Your task to perform on an android device: check out phone information Image 0: 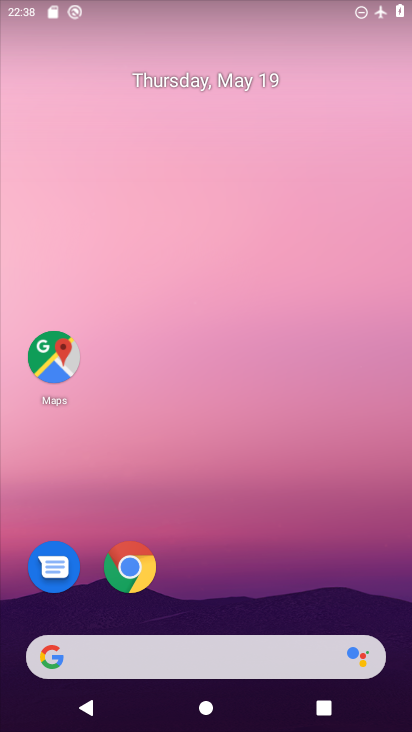
Step 0: drag from (189, 604) to (189, 17)
Your task to perform on an android device: check out phone information Image 1: 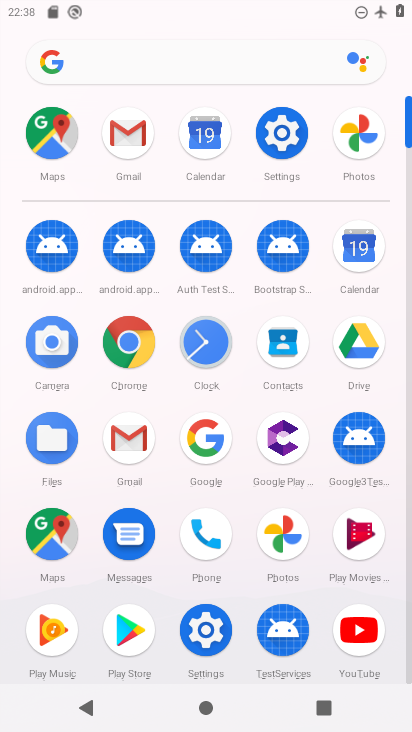
Step 1: click (201, 621)
Your task to perform on an android device: check out phone information Image 2: 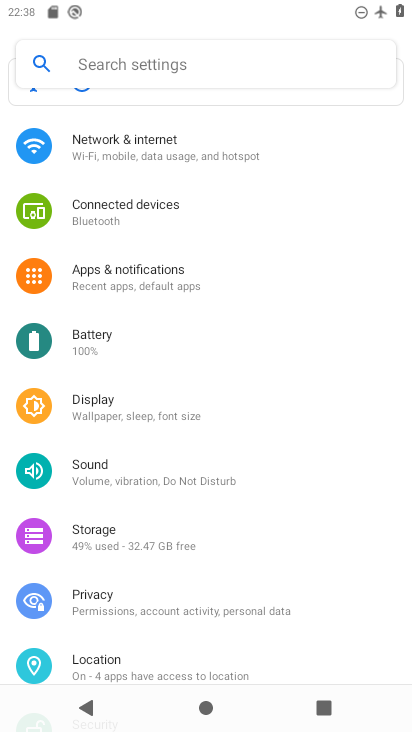
Step 2: drag from (188, 628) to (174, 55)
Your task to perform on an android device: check out phone information Image 3: 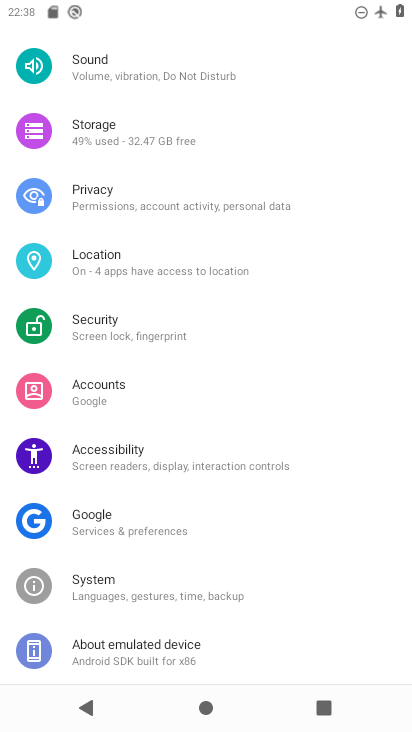
Step 3: click (210, 647)
Your task to perform on an android device: check out phone information Image 4: 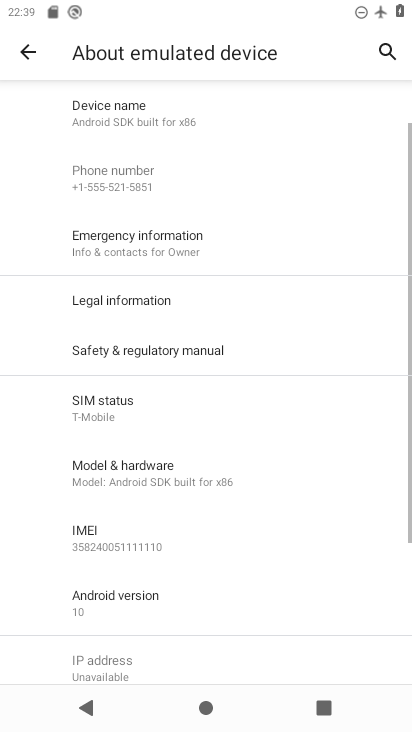
Step 4: task complete